Your task to perform on an android device: open app "Facebook Messenger" (install if not already installed) and enter user name: "divorce@inbox.com" and password: "caviar" Image 0: 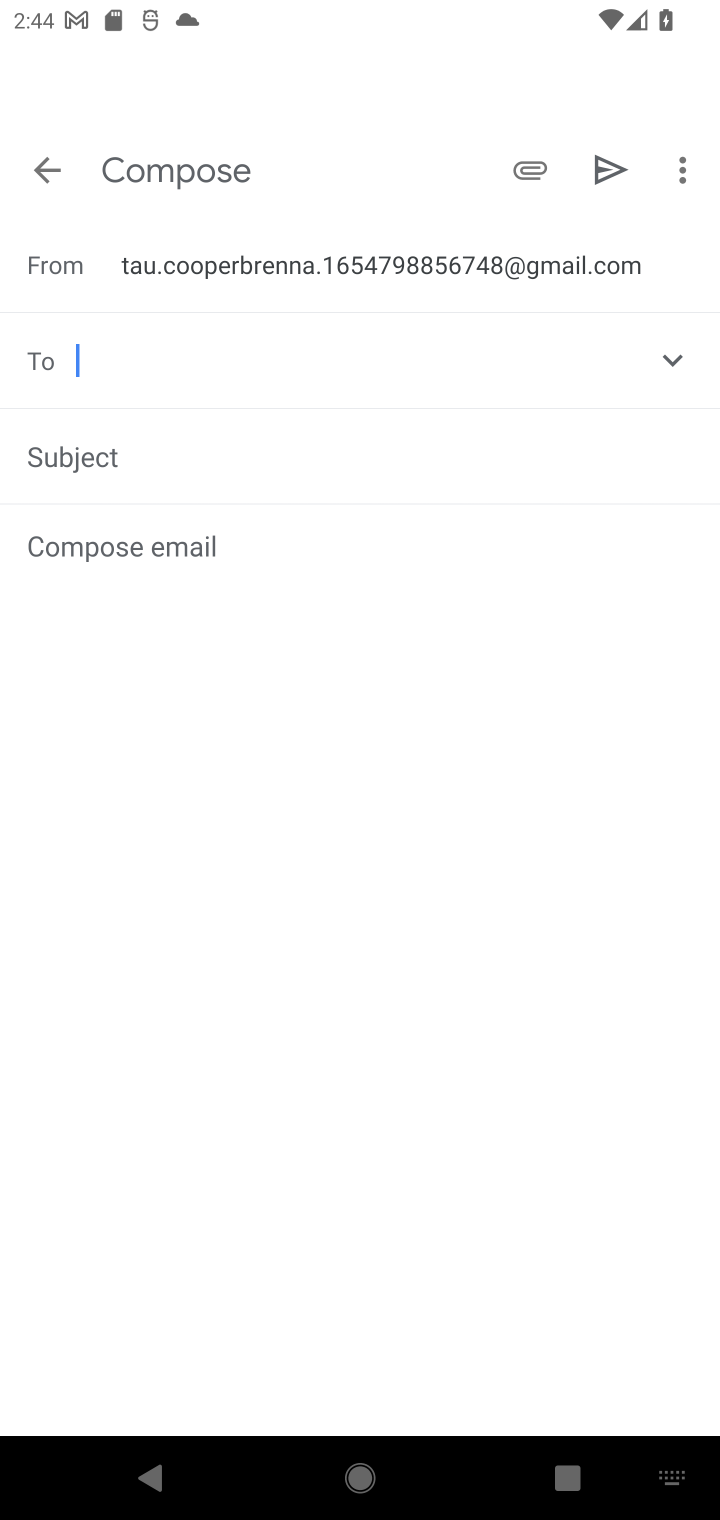
Step 0: press home button
Your task to perform on an android device: open app "Facebook Messenger" (install if not already installed) and enter user name: "divorce@inbox.com" and password: "caviar" Image 1: 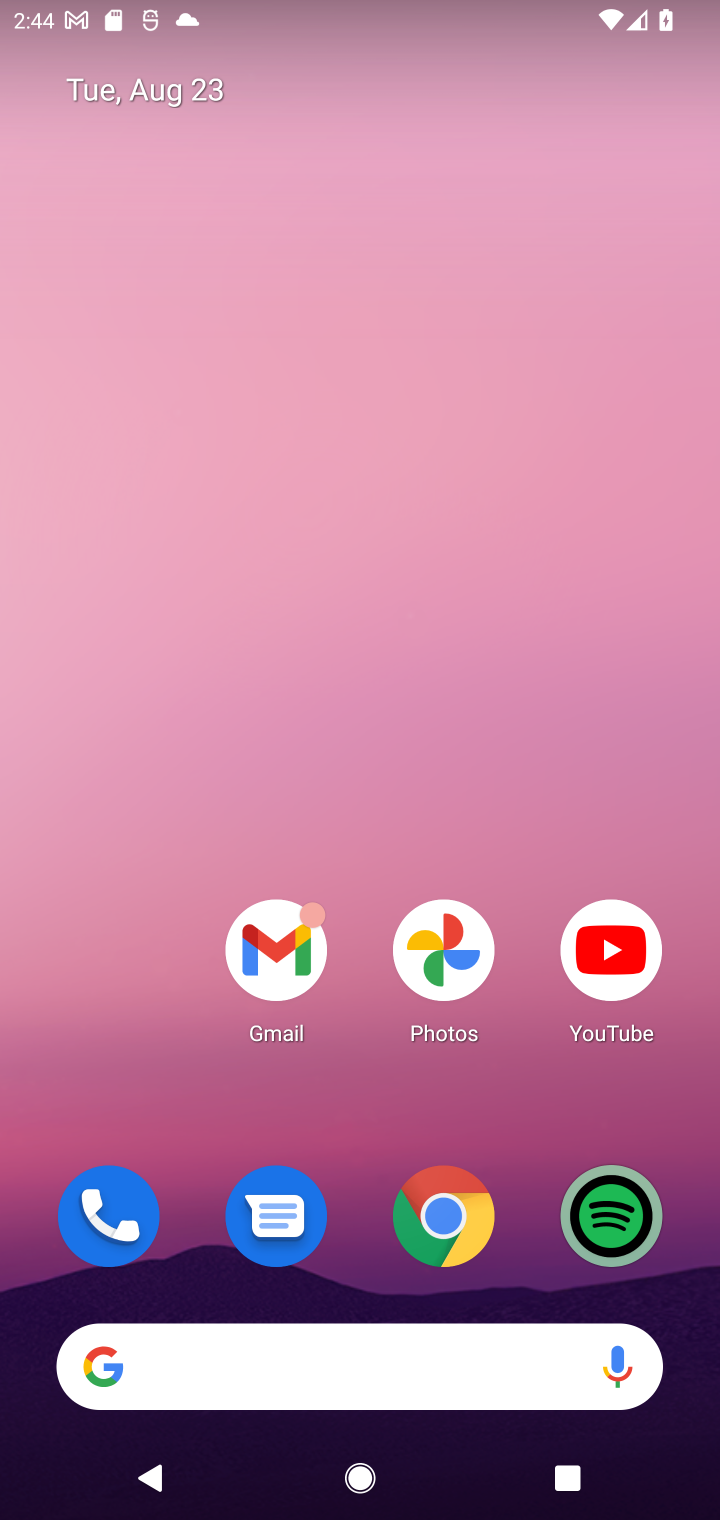
Step 1: drag from (333, 1219) to (384, 49)
Your task to perform on an android device: open app "Facebook Messenger" (install if not already installed) and enter user name: "divorce@inbox.com" and password: "caviar" Image 2: 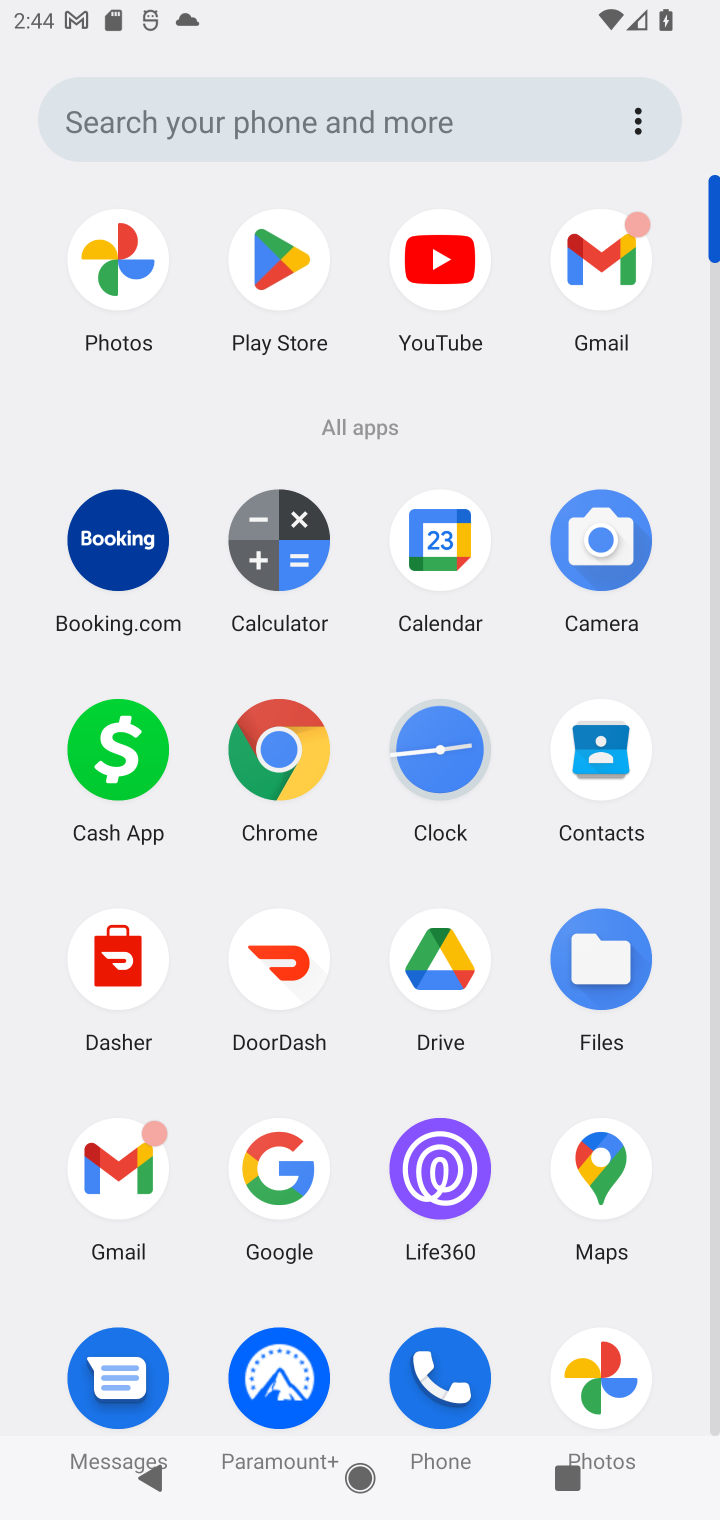
Step 2: click (250, 254)
Your task to perform on an android device: open app "Facebook Messenger" (install if not already installed) and enter user name: "divorce@inbox.com" and password: "caviar" Image 3: 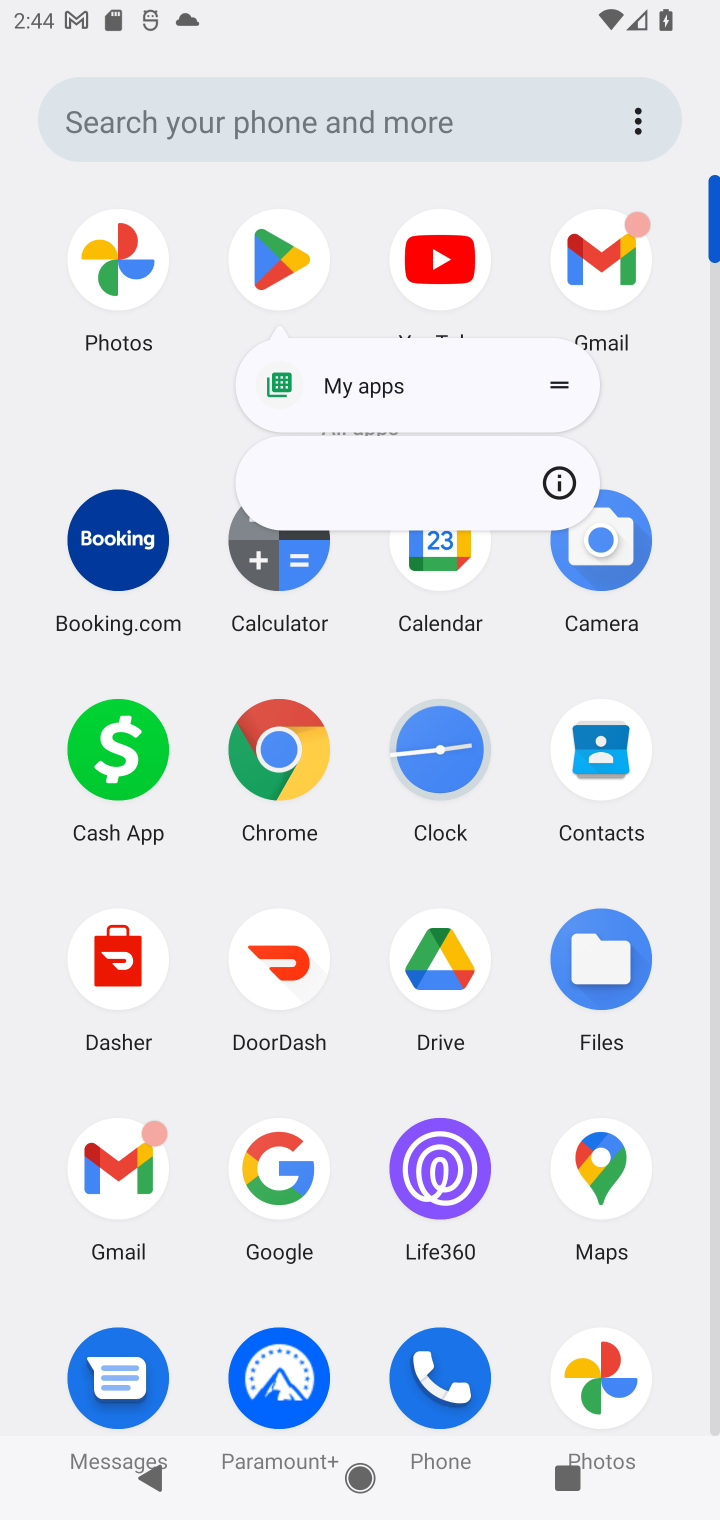
Step 3: click (303, 245)
Your task to perform on an android device: open app "Facebook Messenger" (install if not already installed) and enter user name: "divorce@inbox.com" and password: "caviar" Image 4: 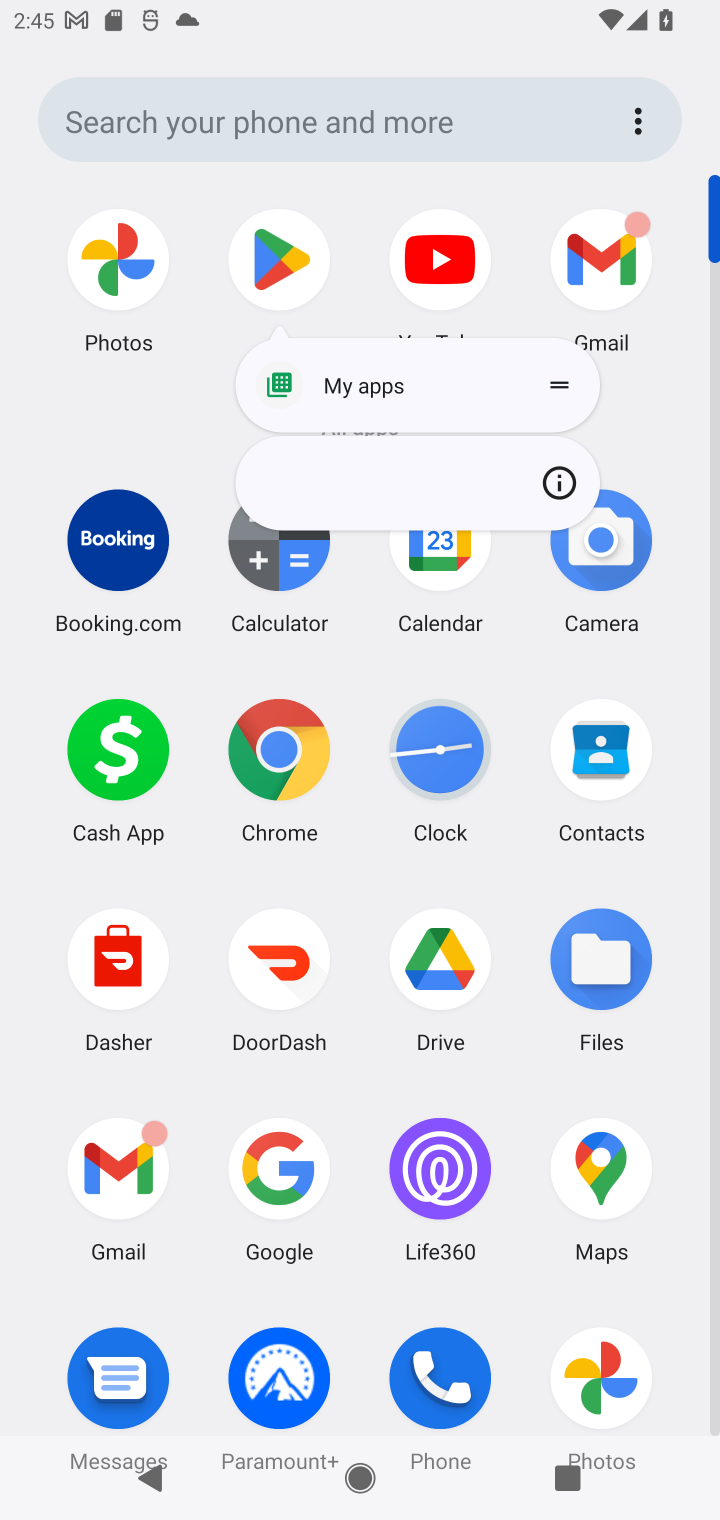
Step 4: click (262, 246)
Your task to perform on an android device: open app "Facebook Messenger" (install if not already installed) and enter user name: "divorce@inbox.com" and password: "caviar" Image 5: 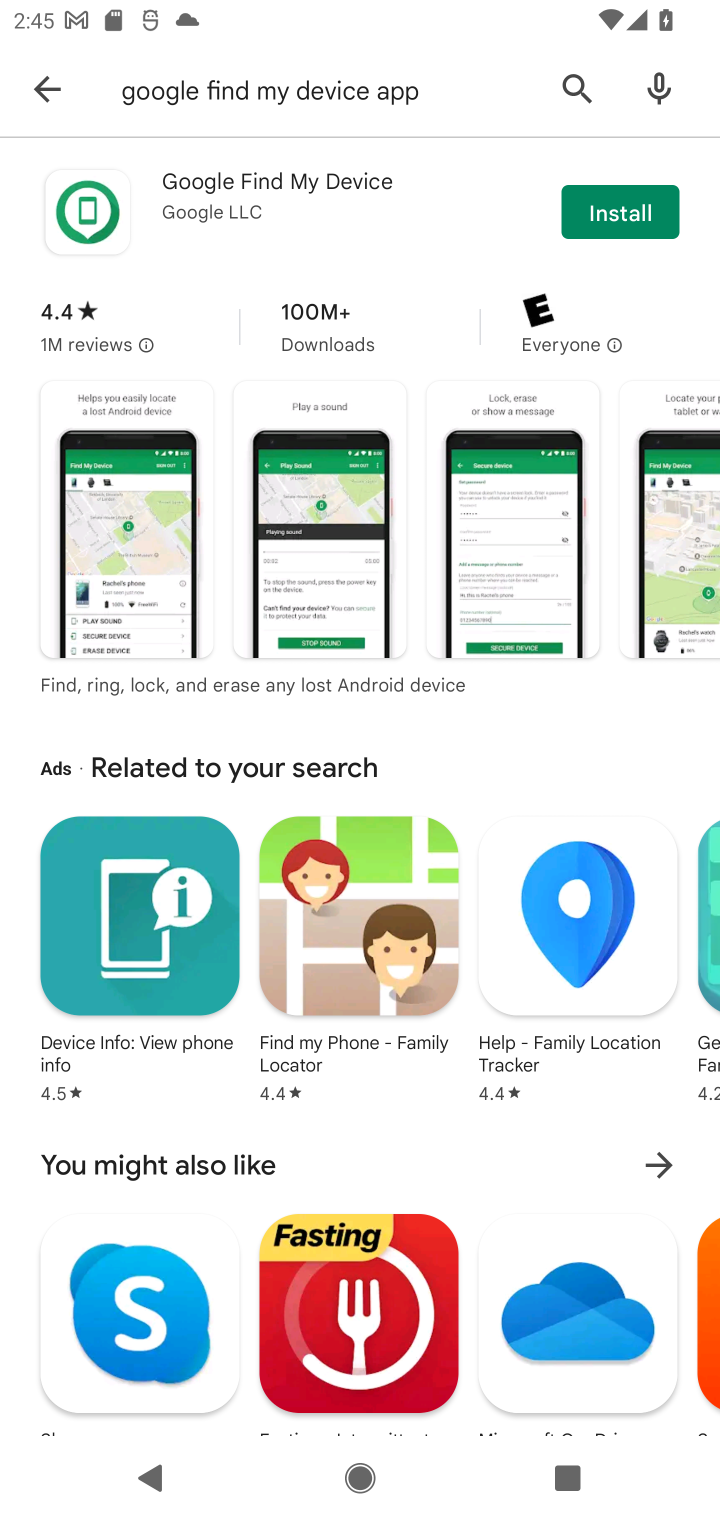
Step 5: click (24, 70)
Your task to perform on an android device: open app "Facebook Messenger" (install if not already installed) and enter user name: "divorce@inbox.com" and password: "caviar" Image 6: 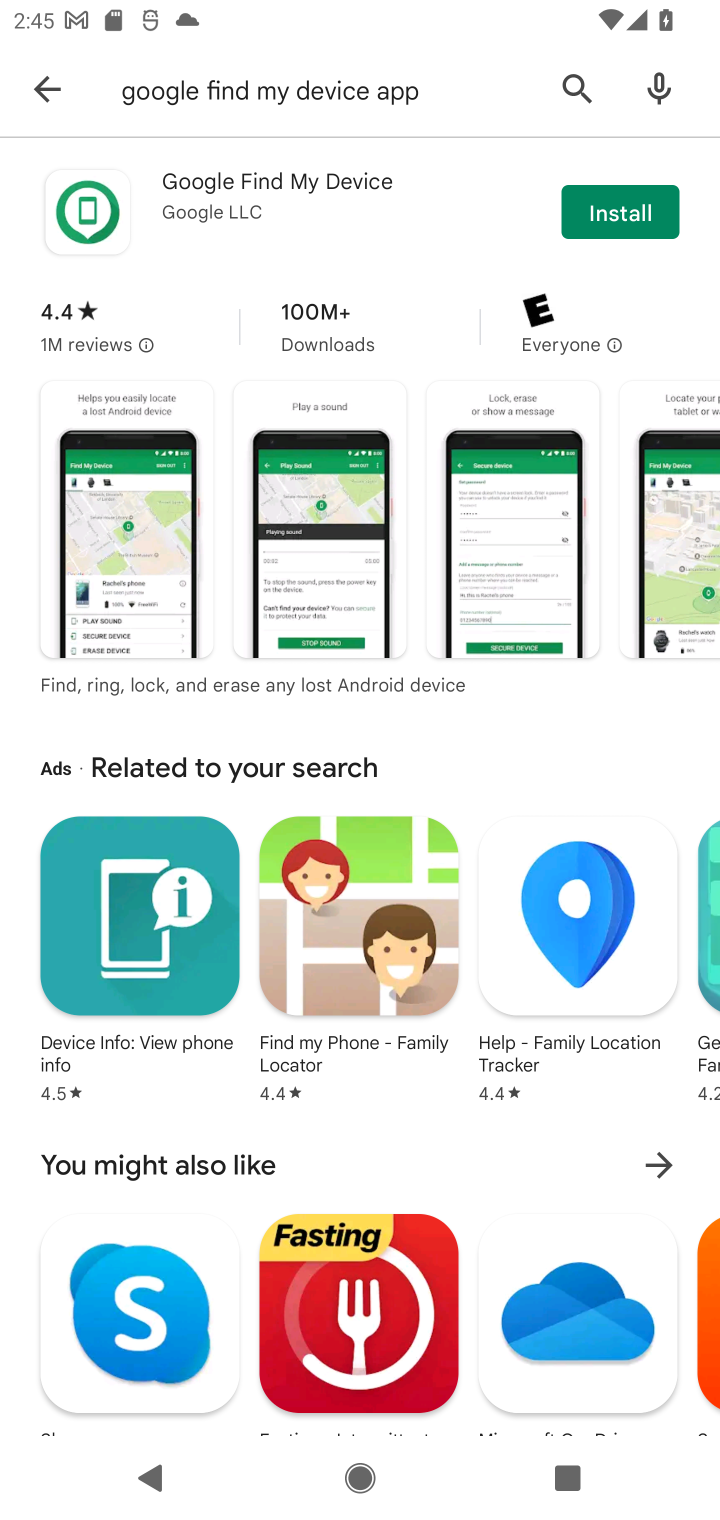
Step 6: click (29, 86)
Your task to perform on an android device: open app "Facebook Messenger" (install if not already installed) and enter user name: "divorce@inbox.com" and password: "caviar" Image 7: 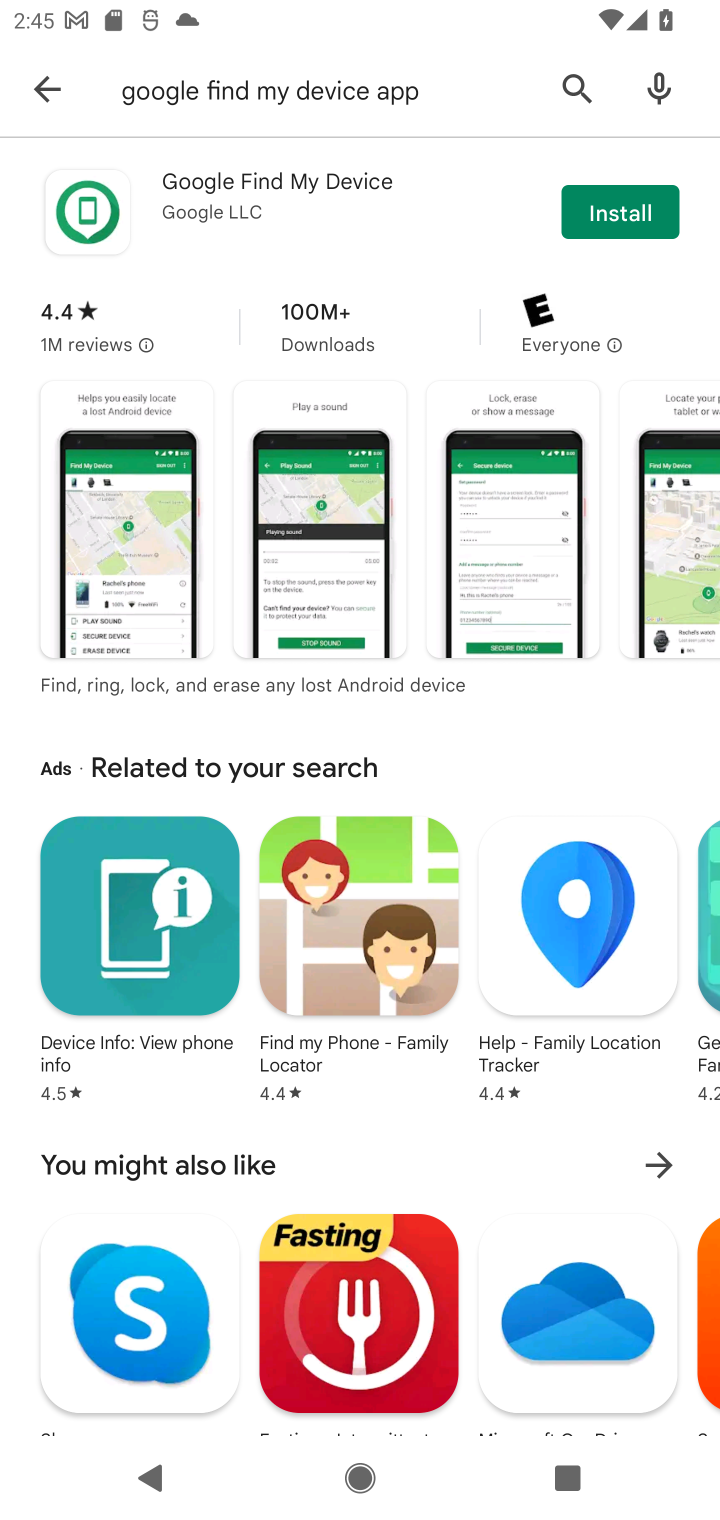
Step 7: click (45, 98)
Your task to perform on an android device: open app "Facebook Messenger" (install if not already installed) and enter user name: "divorce@inbox.com" and password: "caviar" Image 8: 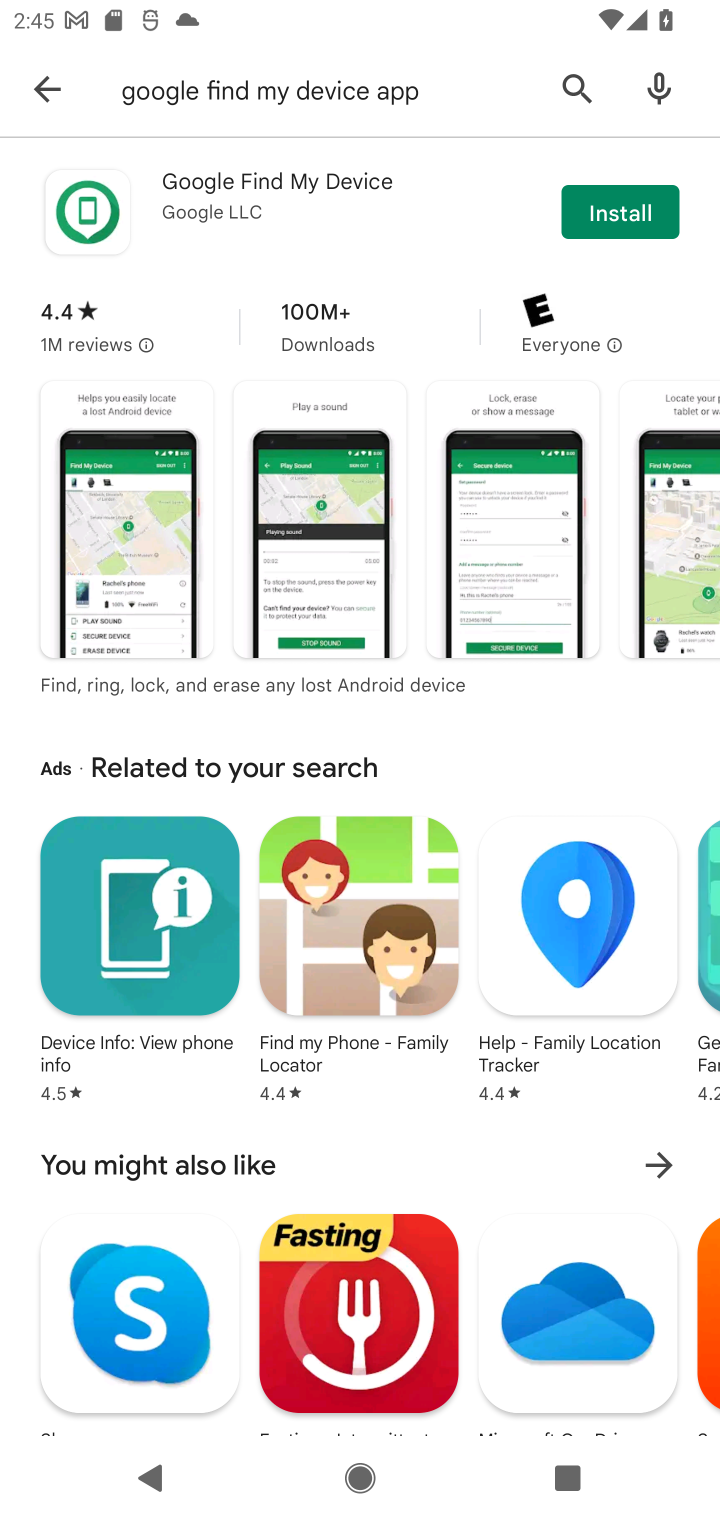
Step 8: click (50, 91)
Your task to perform on an android device: open app "Facebook Messenger" (install if not already installed) and enter user name: "divorce@inbox.com" and password: "caviar" Image 9: 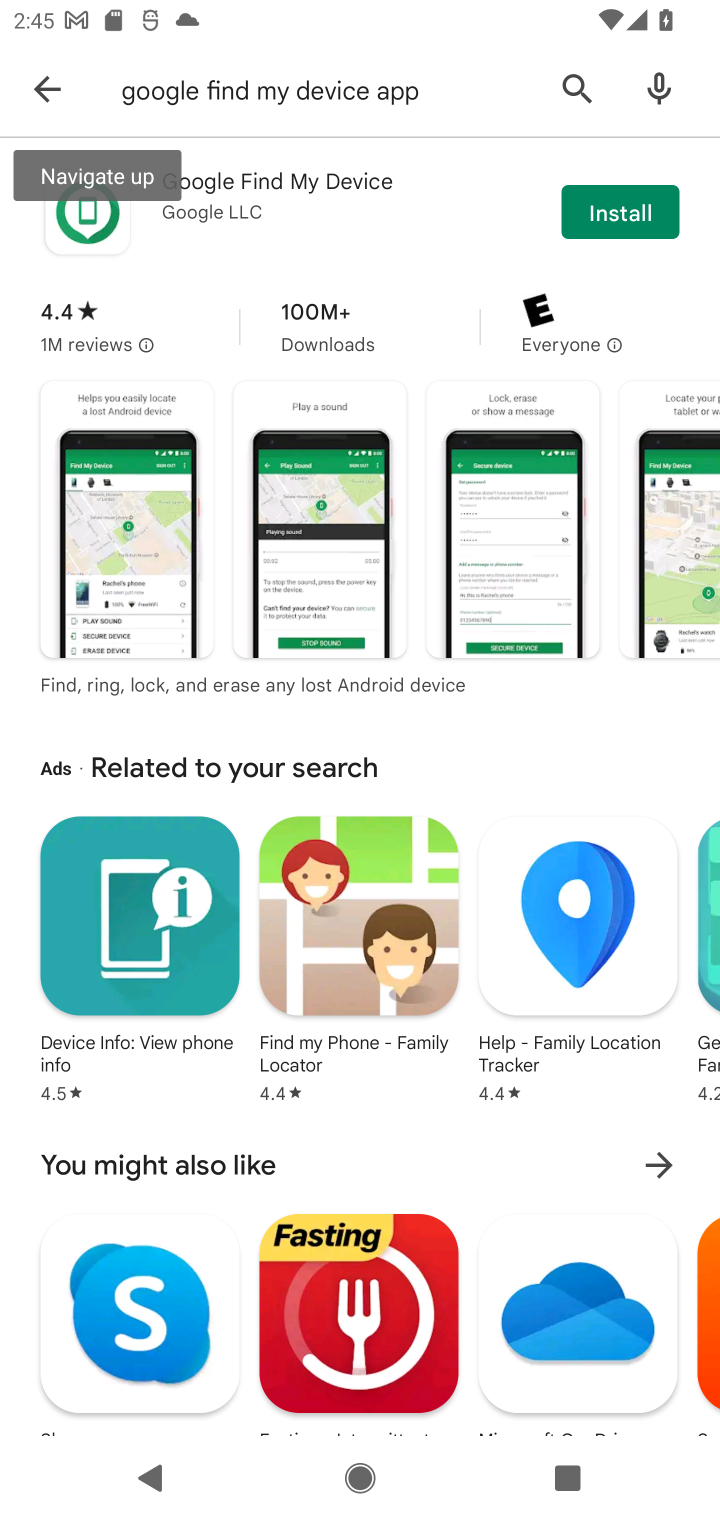
Step 9: click (50, 87)
Your task to perform on an android device: open app "Facebook Messenger" (install if not already installed) and enter user name: "divorce@inbox.com" and password: "caviar" Image 10: 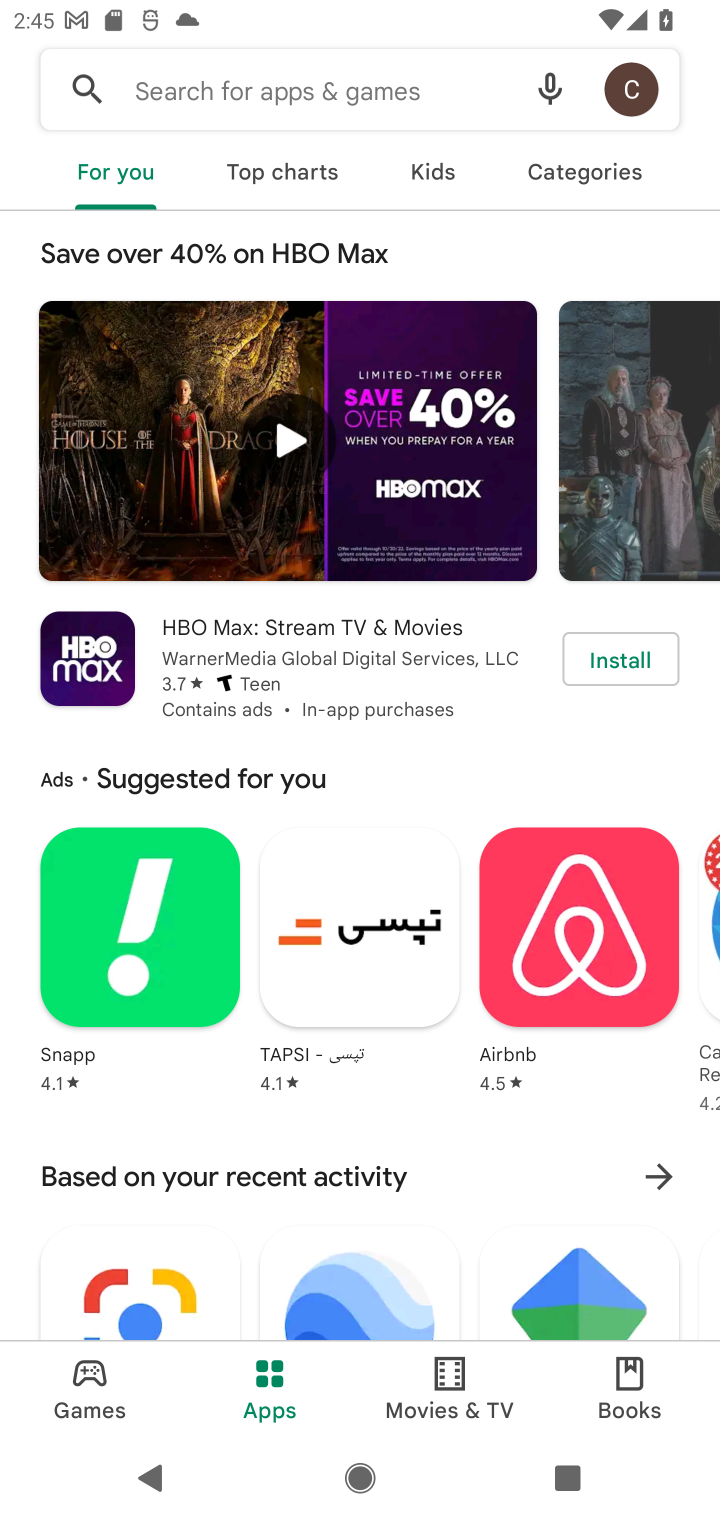
Step 10: click (50, 87)
Your task to perform on an android device: open app "Facebook Messenger" (install if not already installed) and enter user name: "divorce@inbox.com" and password: "caviar" Image 11: 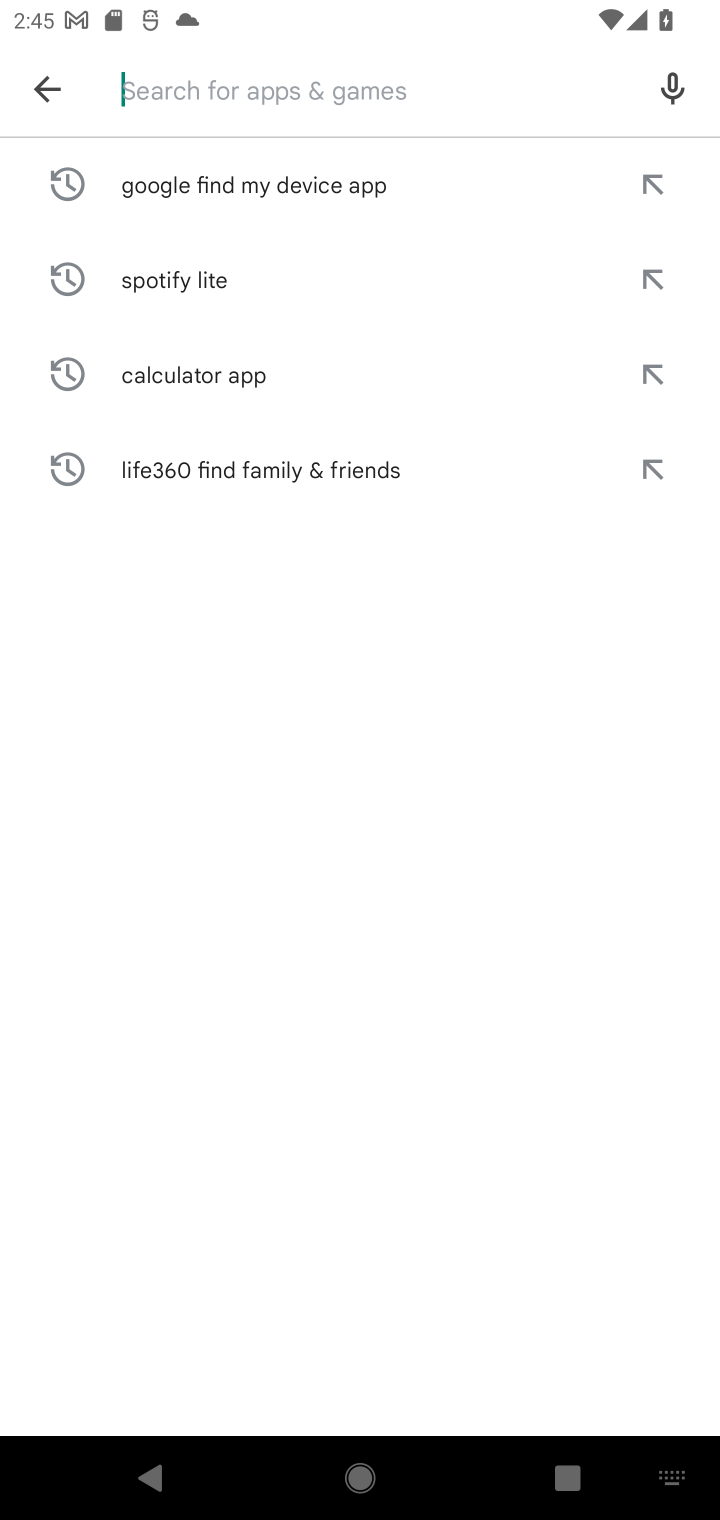
Step 11: click (343, 81)
Your task to perform on an android device: open app "Facebook Messenger" (install if not already installed) and enter user name: "divorce@inbox.com" and password: "caviar" Image 12: 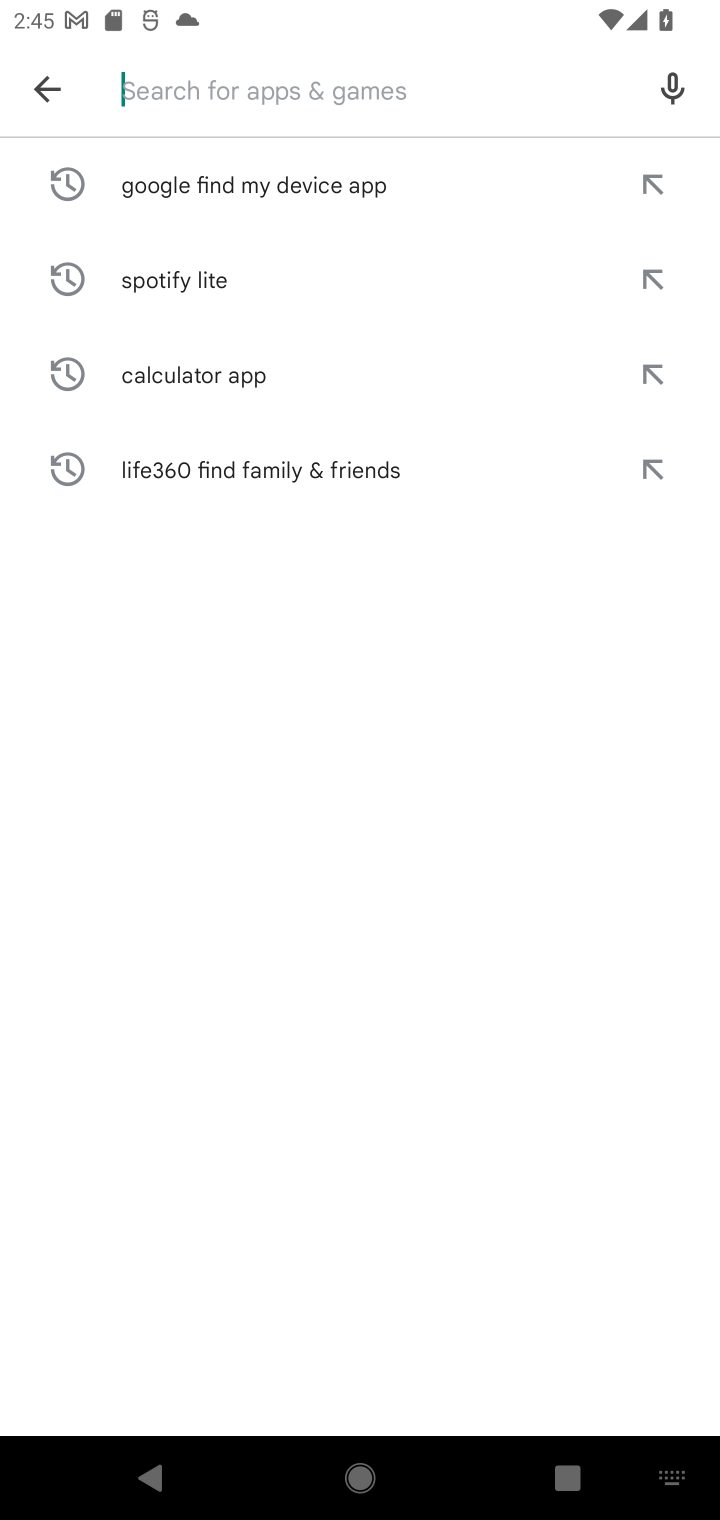
Step 12: type "Facebook Messenger "
Your task to perform on an android device: open app "Facebook Messenger" (install if not already installed) and enter user name: "divorce@inbox.com" and password: "caviar" Image 13: 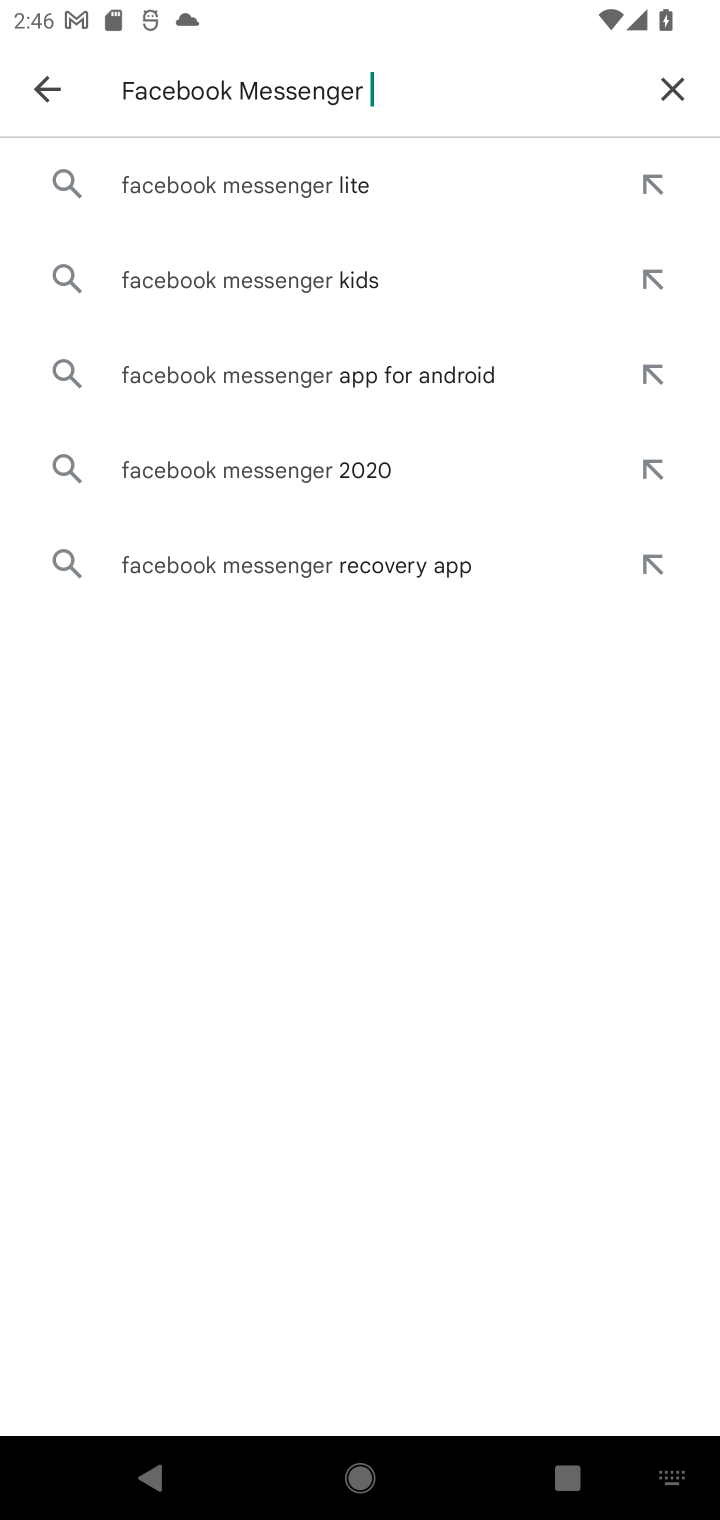
Step 13: click (267, 199)
Your task to perform on an android device: open app "Facebook Messenger" (install if not already installed) and enter user name: "divorce@inbox.com" and password: "caviar" Image 14: 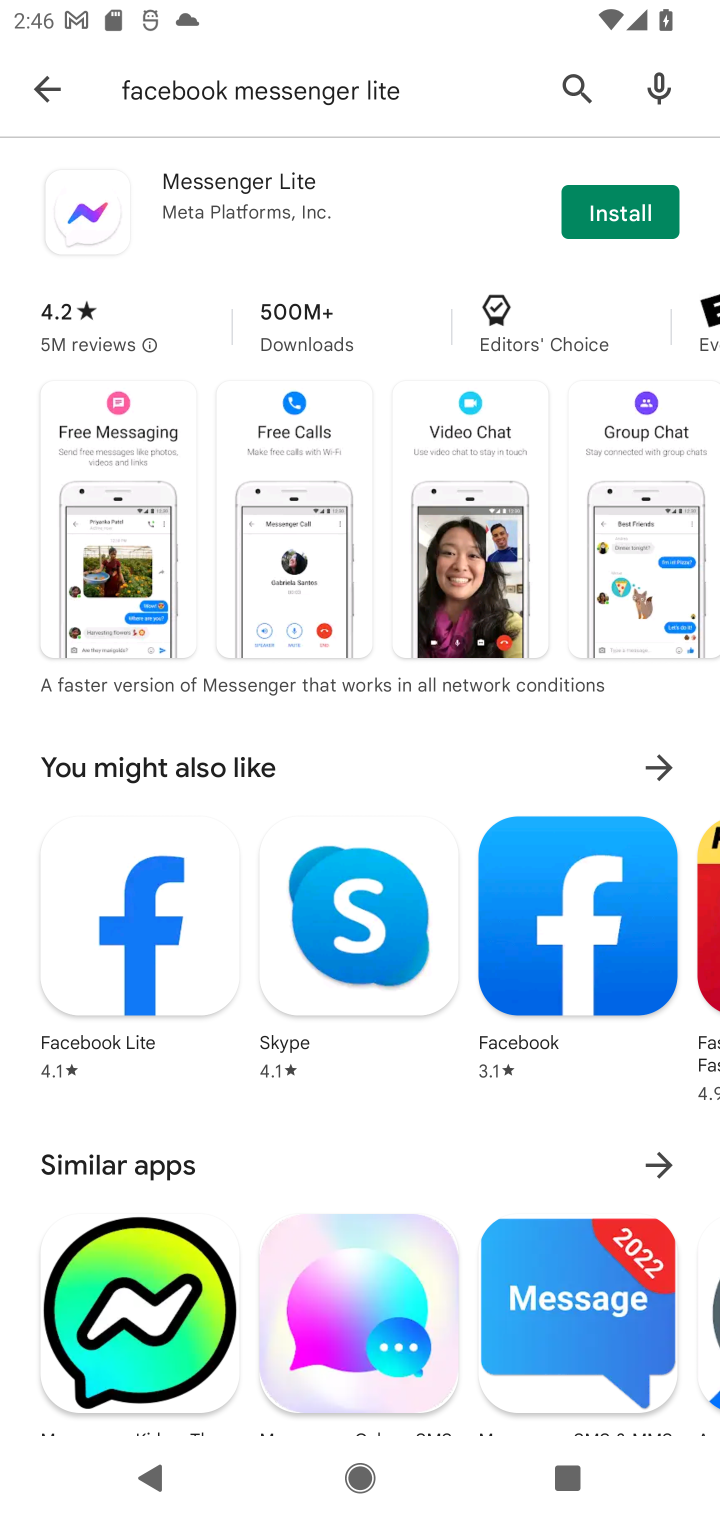
Step 14: click (591, 193)
Your task to perform on an android device: open app "Facebook Messenger" (install if not already installed) and enter user name: "divorce@inbox.com" and password: "caviar" Image 15: 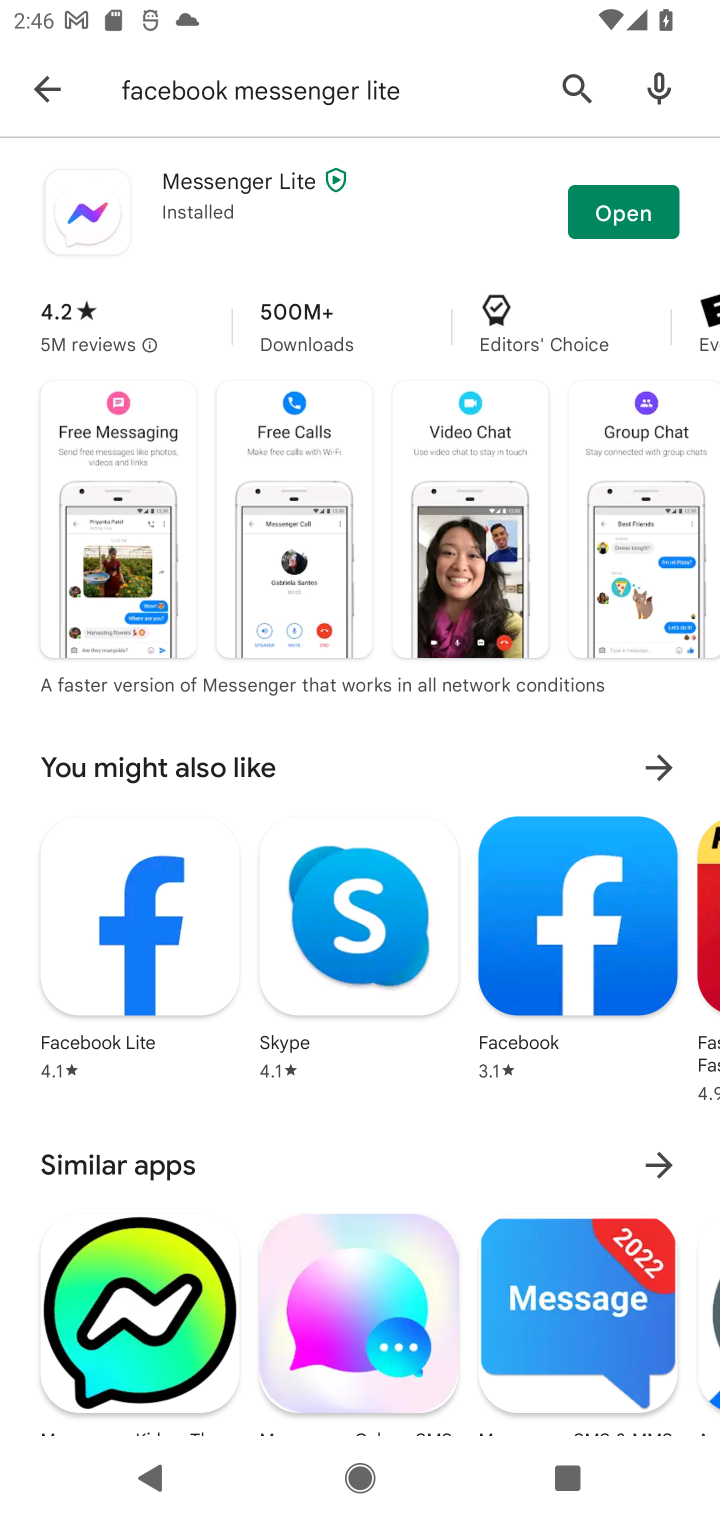
Step 15: click (651, 194)
Your task to perform on an android device: open app "Facebook Messenger" (install if not already installed) and enter user name: "divorce@inbox.com" and password: "caviar" Image 16: 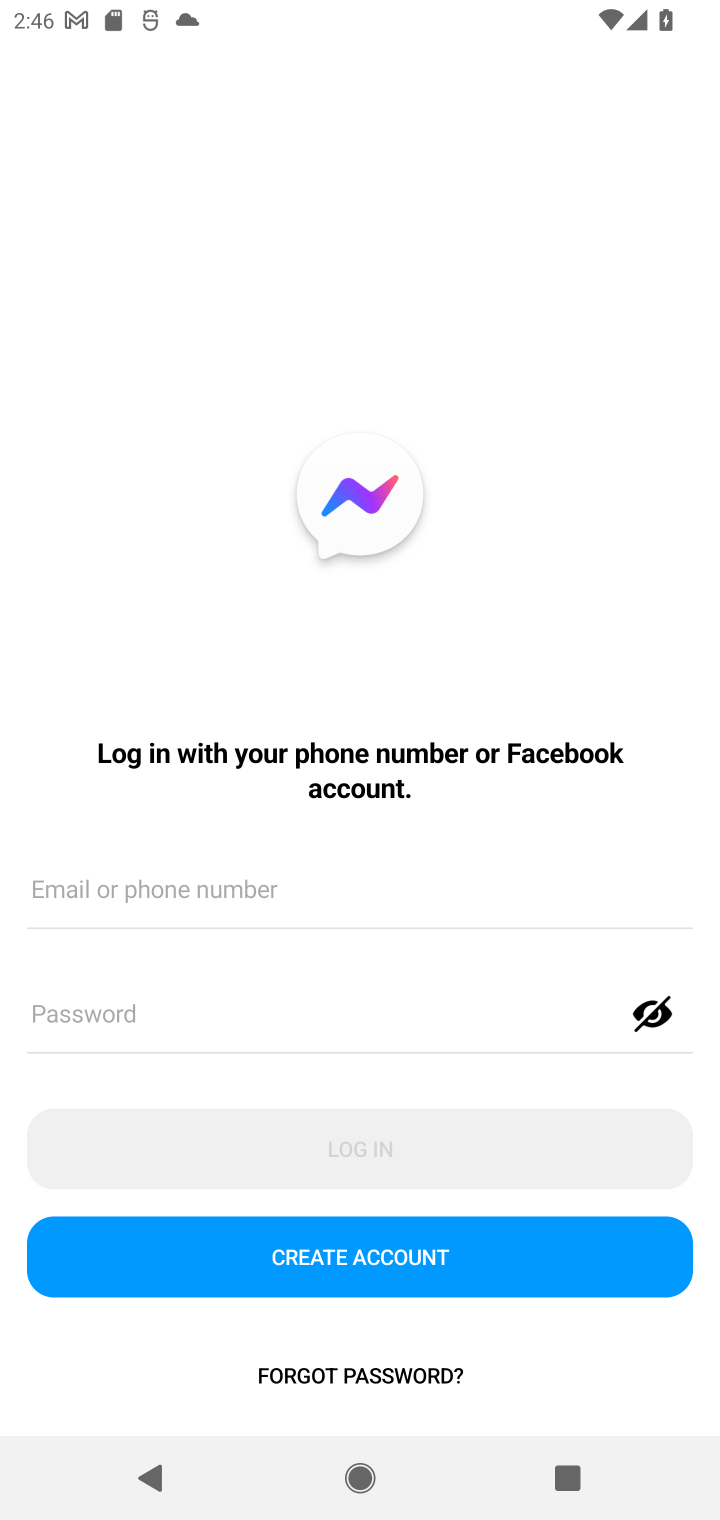
Step 16: task complete